Your task to perform on an android device: make emails show in primary in the gmail app Image 0: 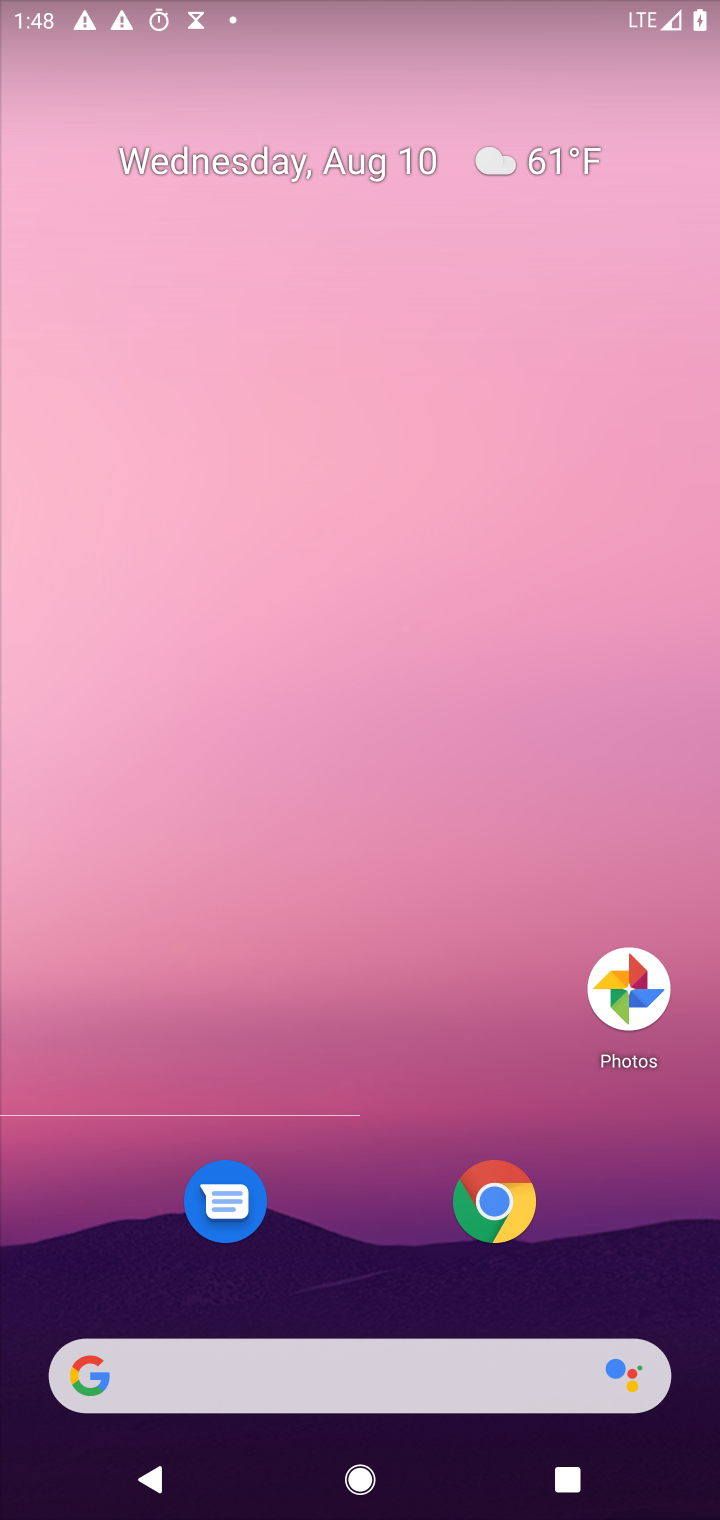
Step 0: press home button
Your task to perform on an android device: make emails show in primary in the gmail app Image 1: 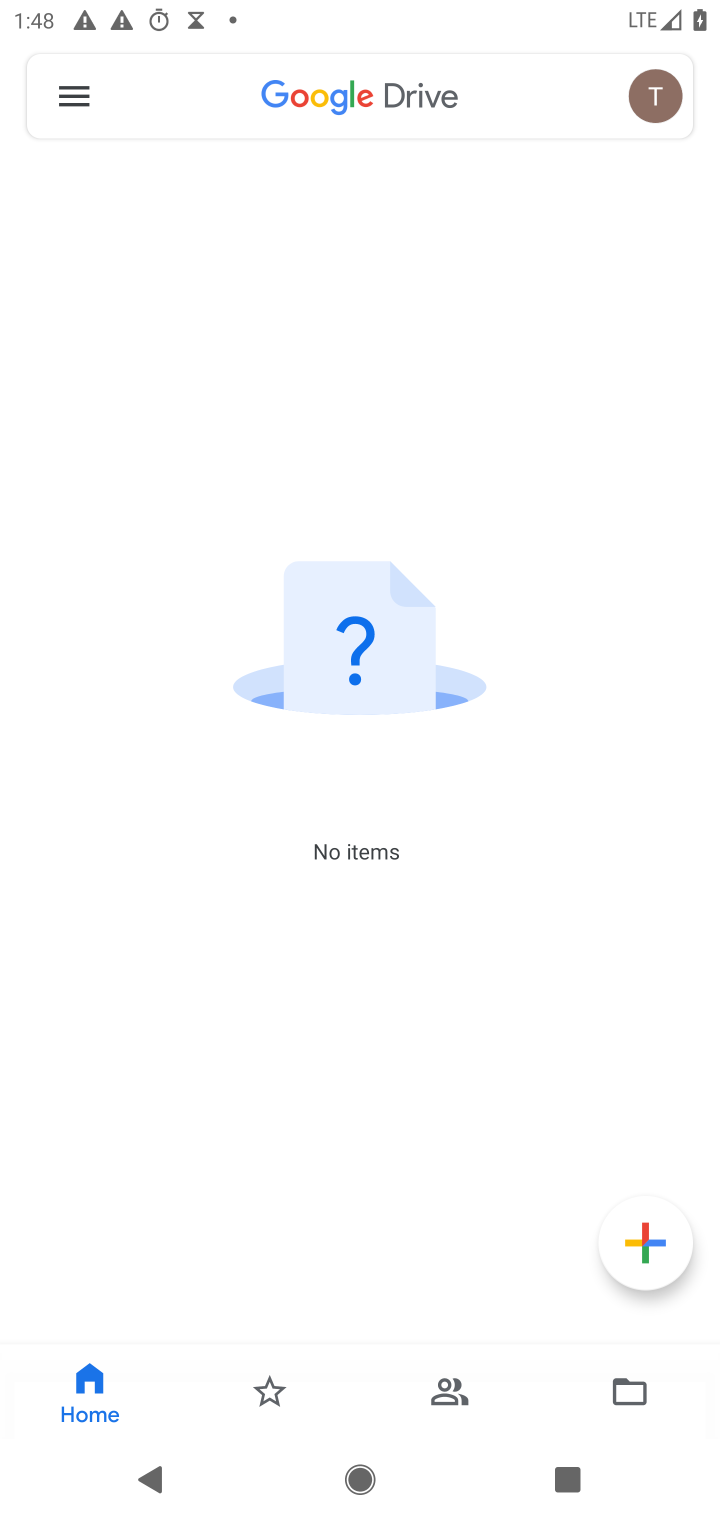
Step 1: press home button
Your task to perform on an android device: make emails show in primary in the gmail app Image 2: 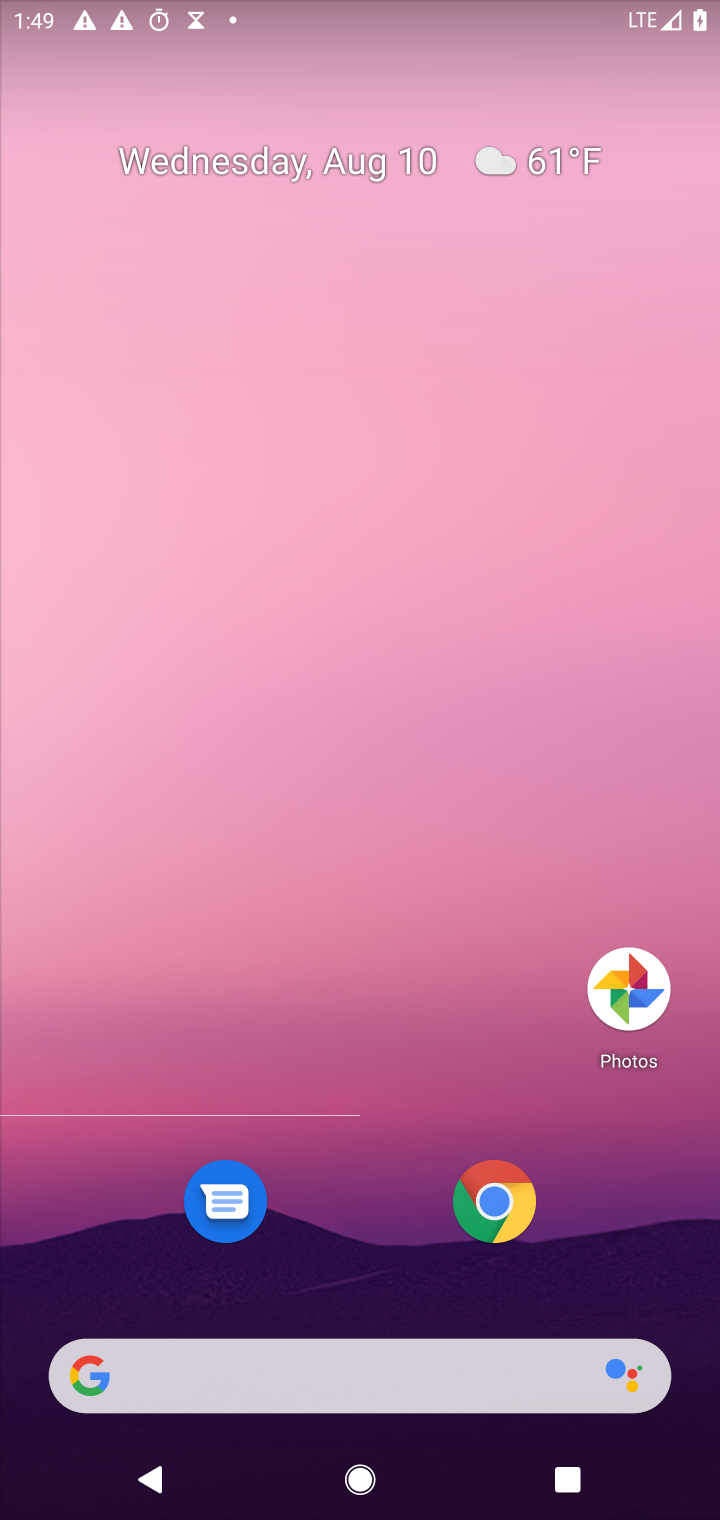
Step 2: drag from (351, 1244) to (296, 275)
Your task to perform on an android device: make emails show in primary in the gmail app Image 3: 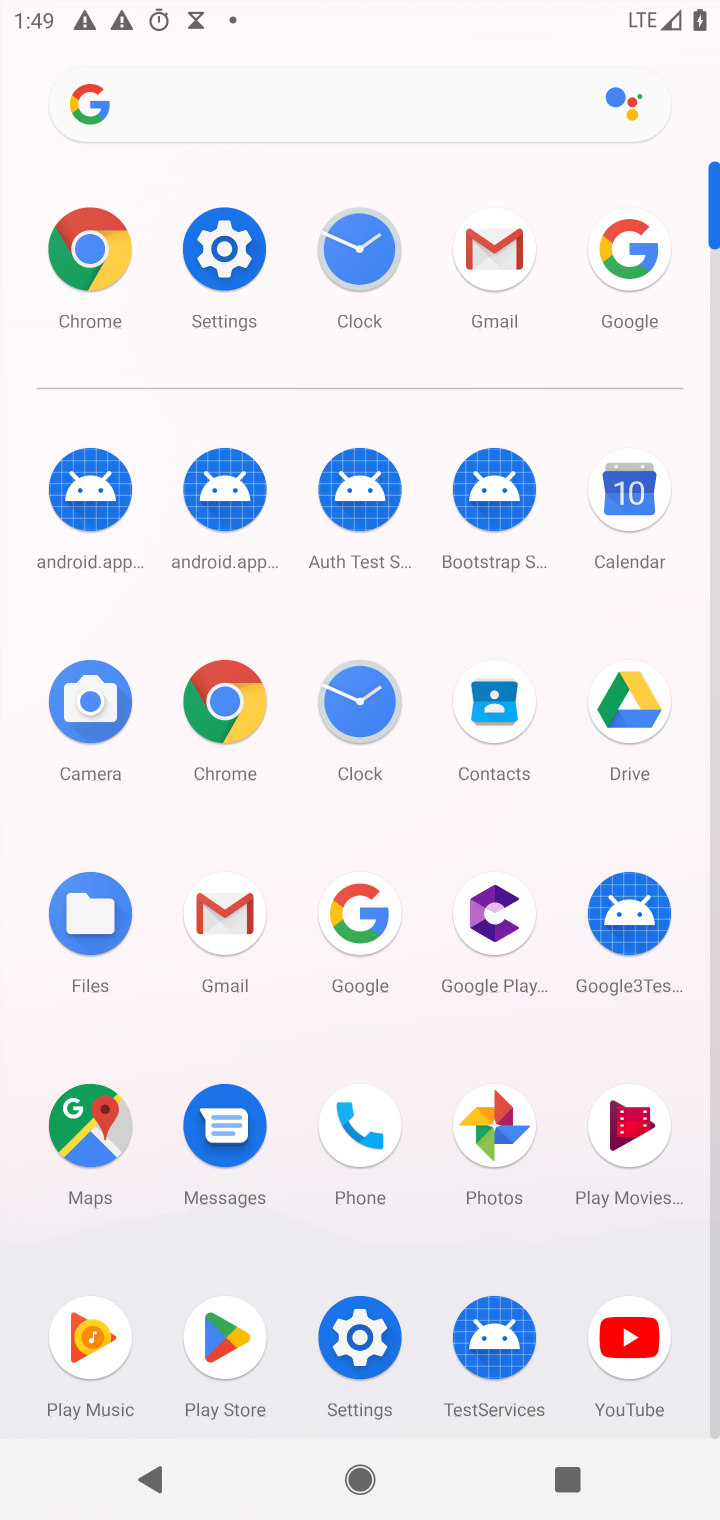
Step 3: click (487, 261)
Your task to perform on an android device: make emails show in primary in the gmail app Image 4: 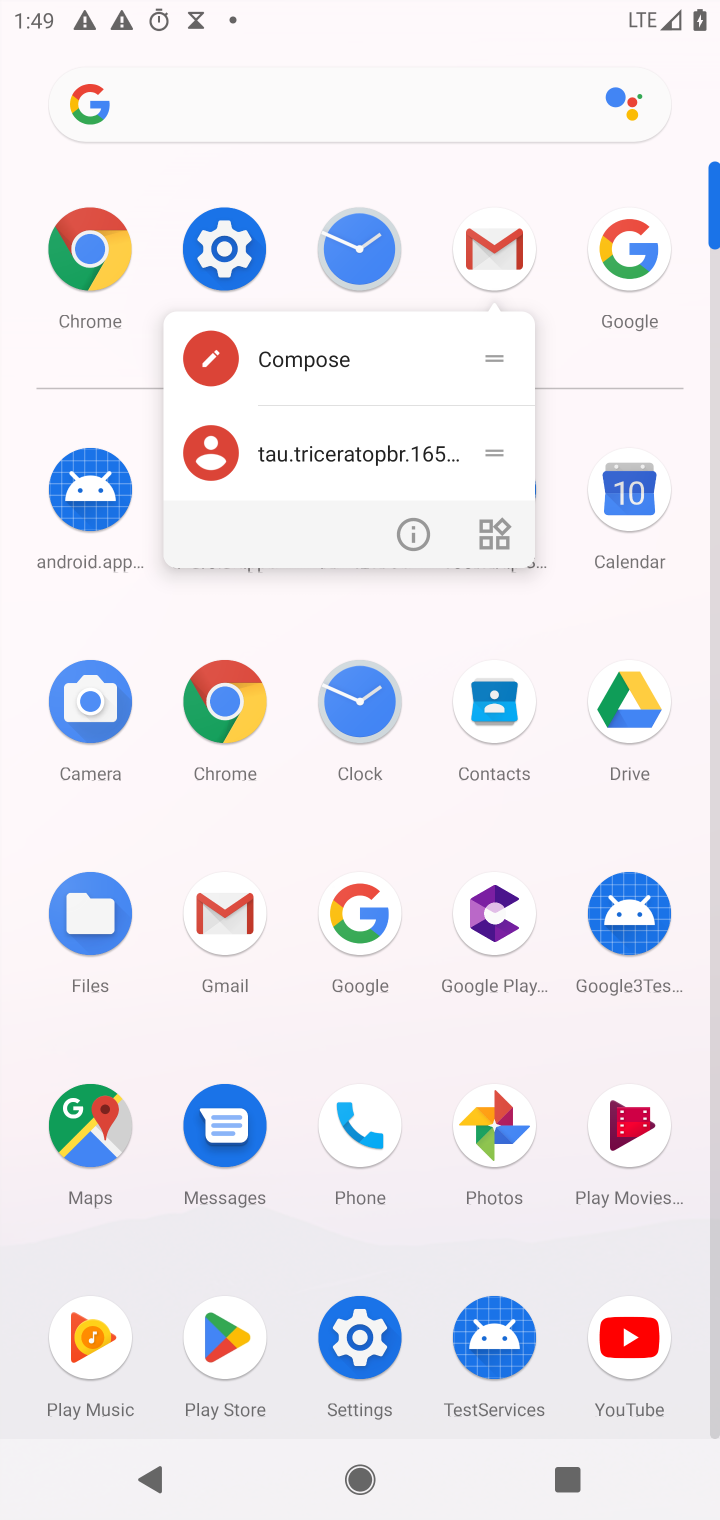
Step 4: click (480, 249)
Your task to perform on an android device: make emails show in primary in the gmail app Image 5: 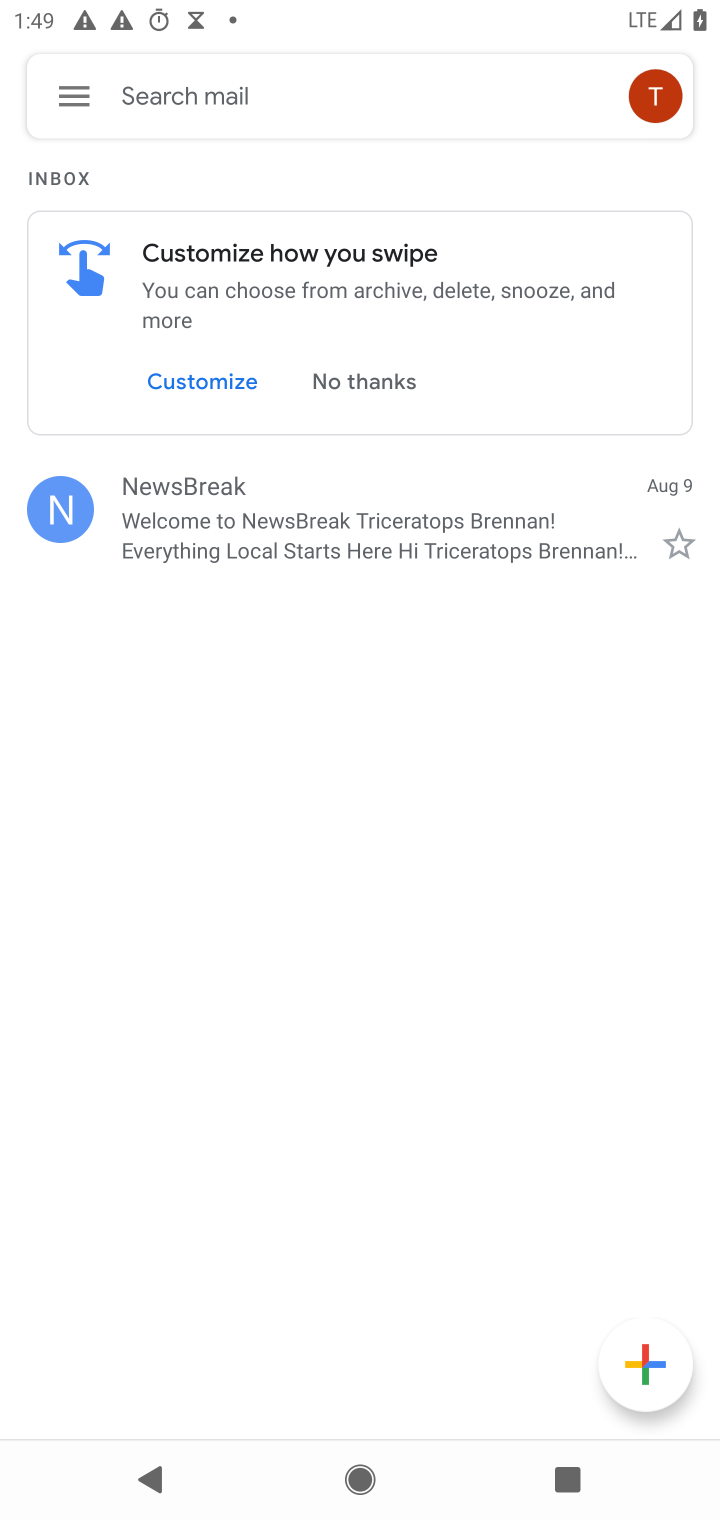
Step 5: click (63, 94)
Your task to perform on an android device: make emails show in primary in the gmail app Image 6: 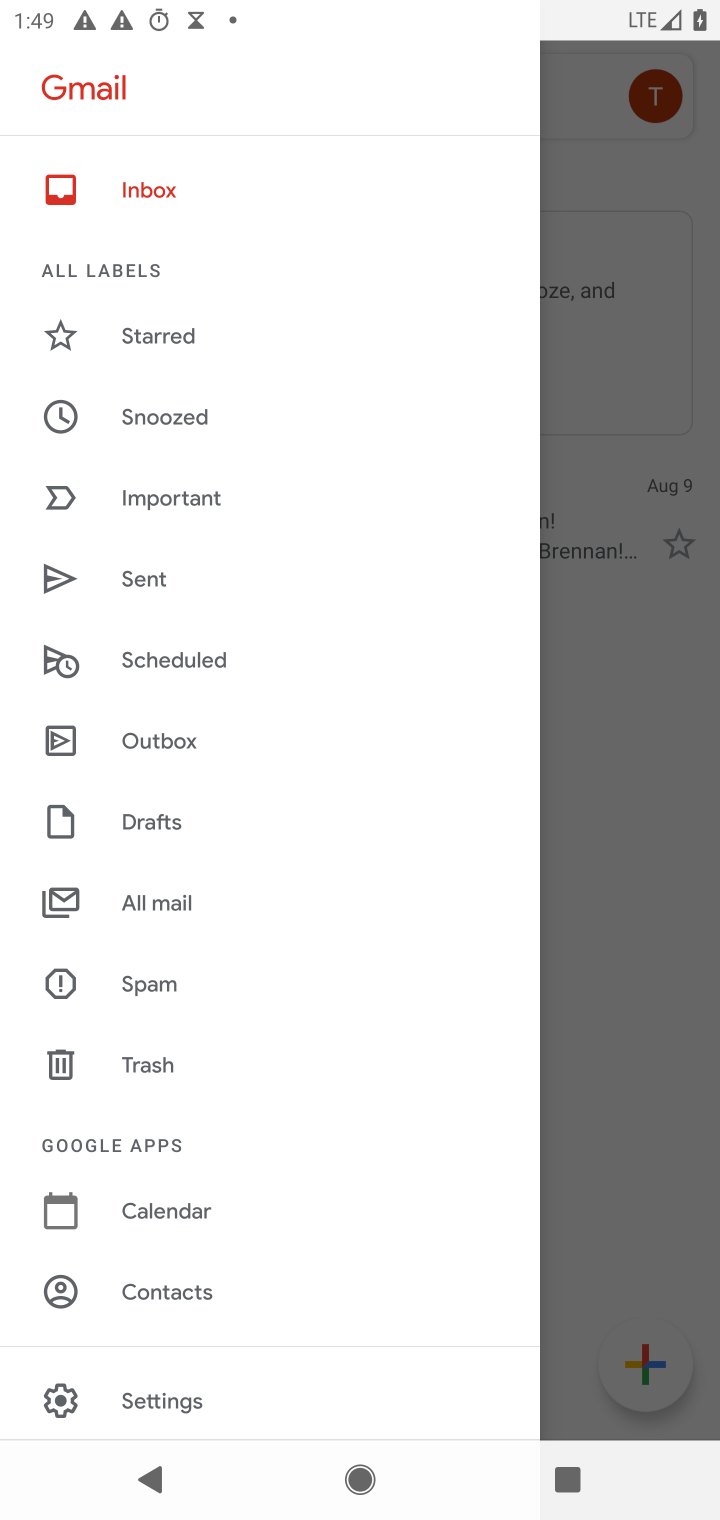
Step 6: click (147, 1413)
Your task to perform on an android device: make emails show in primary in the gmail app Image 7: 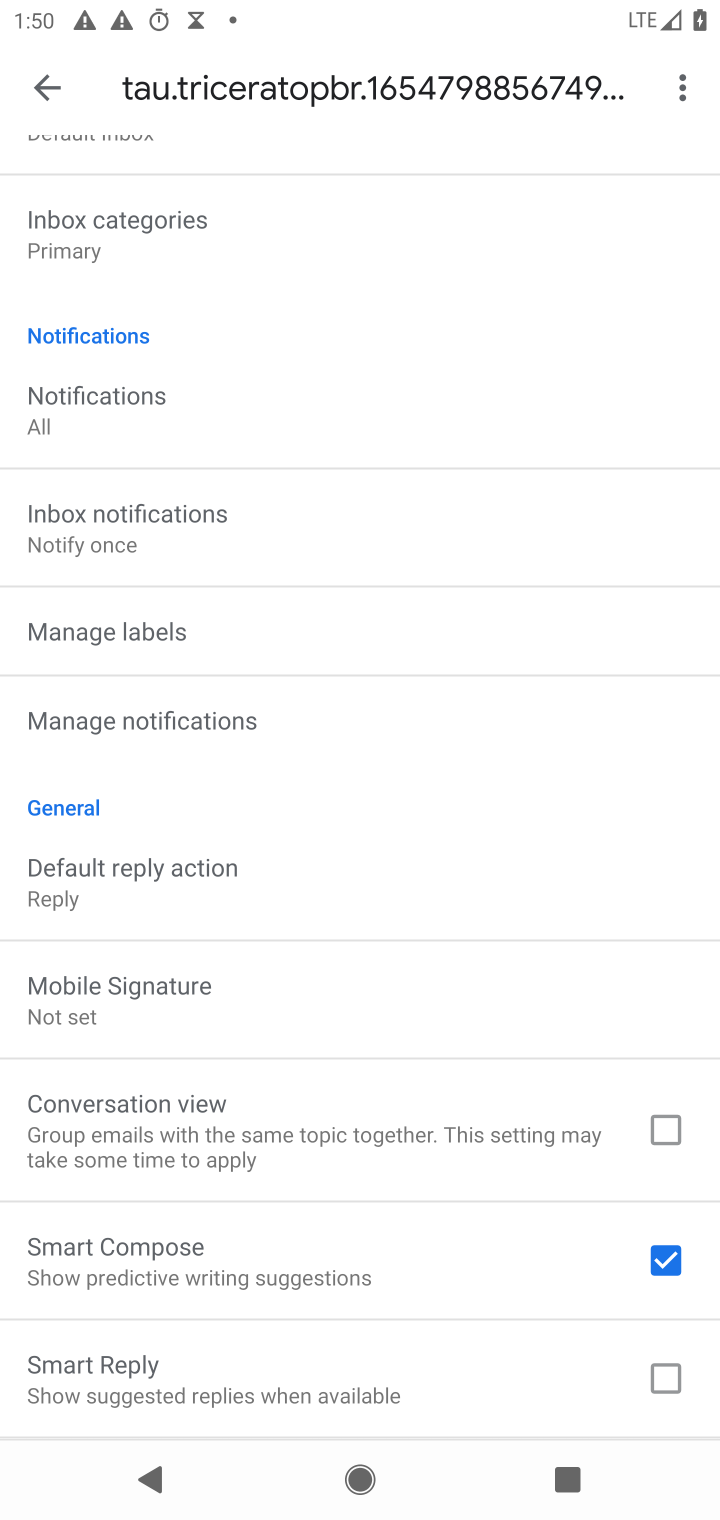
Step 7: task complete